Your task to perform on an android device: Is it going to rain today? Image 0: 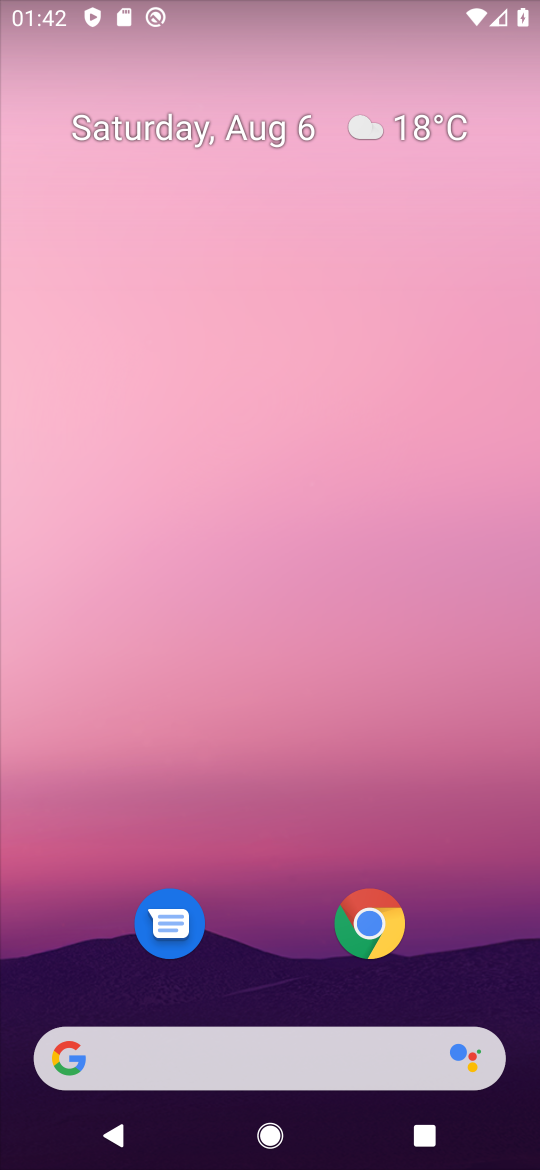
Step 0: click (354, 347)
Your task to perform on an android device: Is it going to rain today? Image 1: 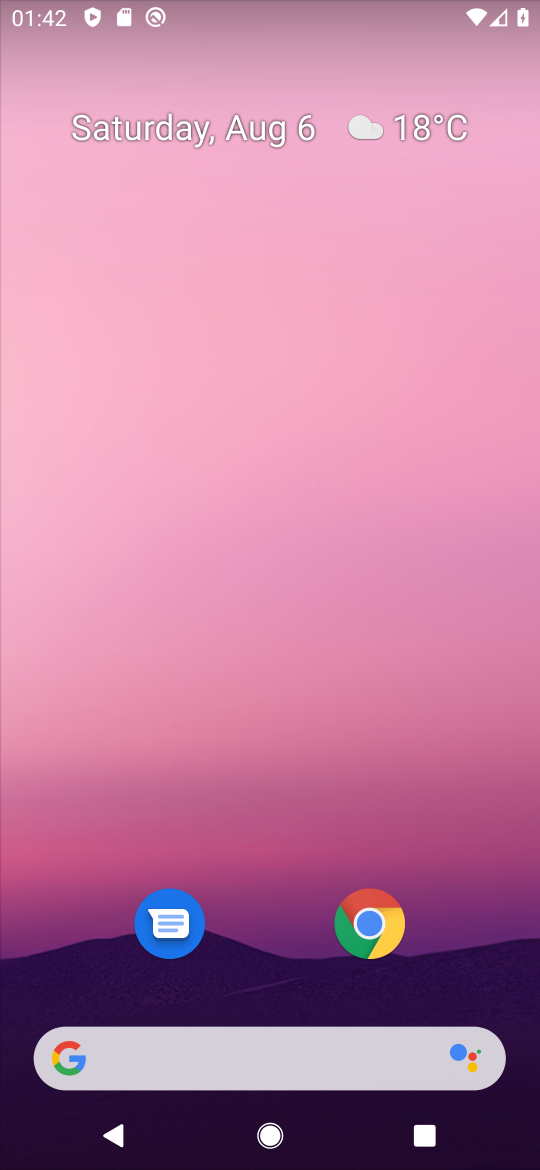
Step 1: drag from (295, 995) to (324, 345)
Your task to perform on an android device: Is it going to rain today? Image 2: 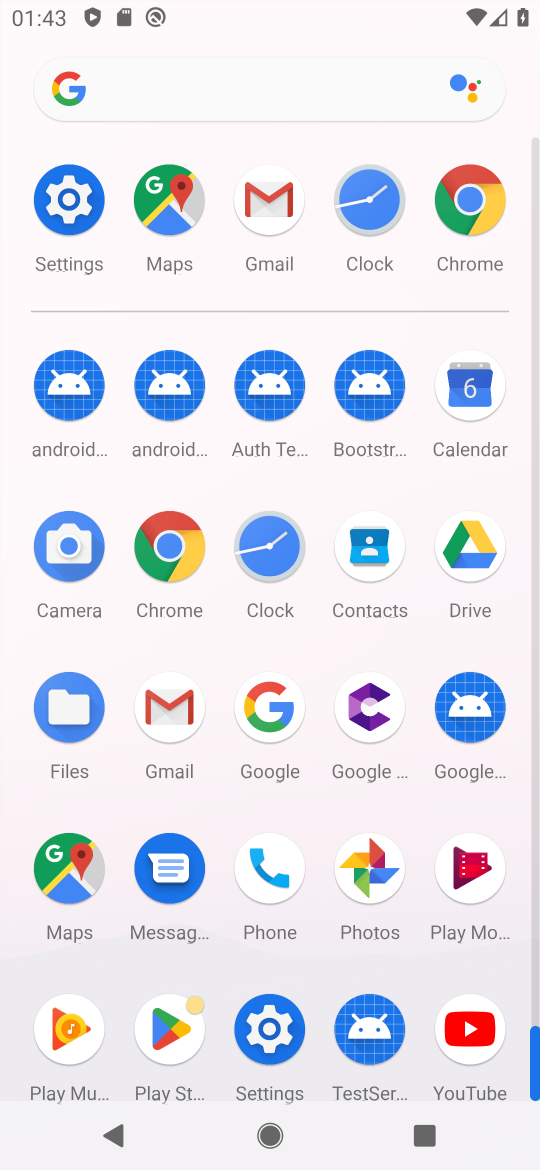
Step 2: click (161, 84)
Your task to perform on an android device: Is it going to rain today? Image 3: 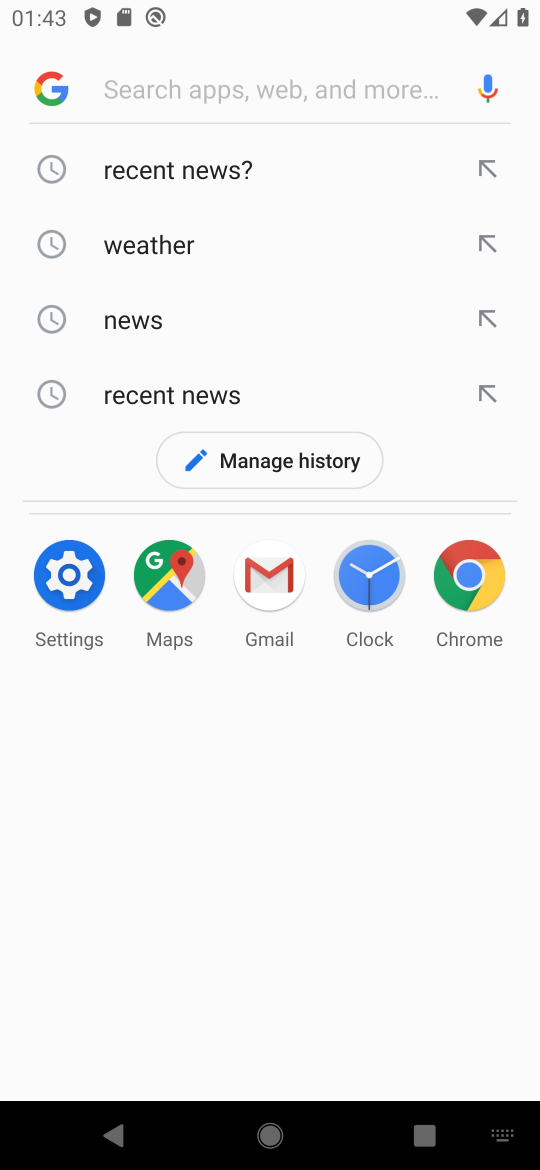
Step 3: type "Is it going to rain today?"
Your task to perform on an android device: Is it going to rain today? Image 4: 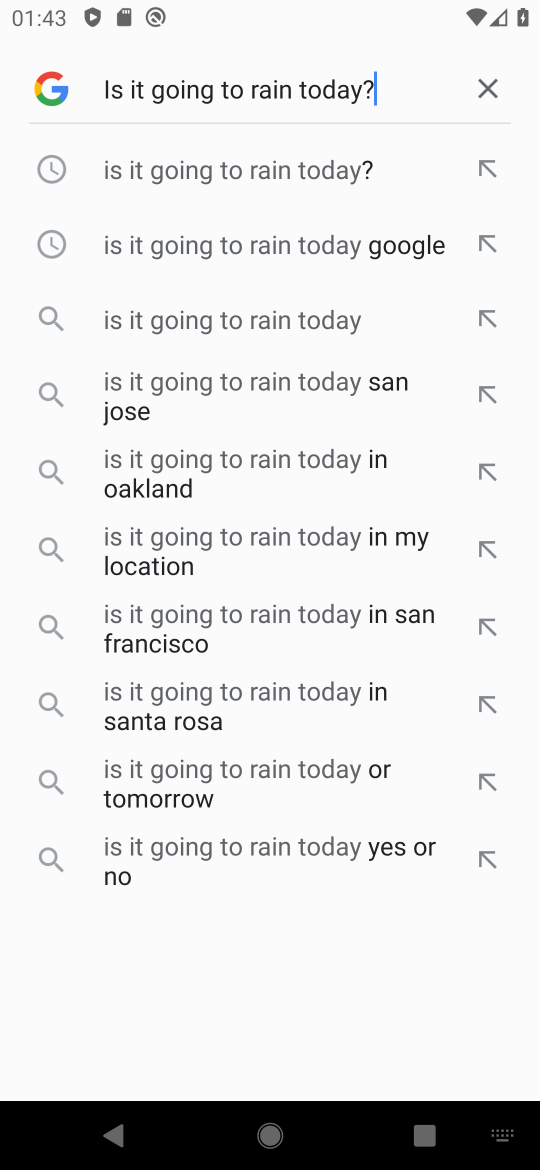
Step 4: type ""
Your task to perform on an android device: Is it going to rain today? Image 5: 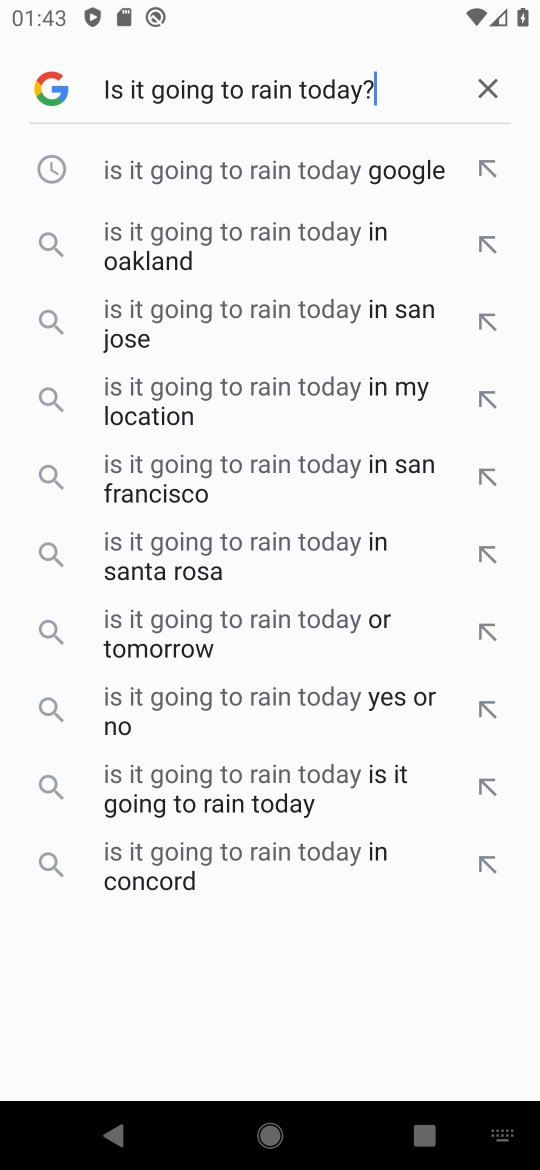
Step 5: click (258, 87)
Your task to perform on an android device: Is it going to rain today? Image 6: 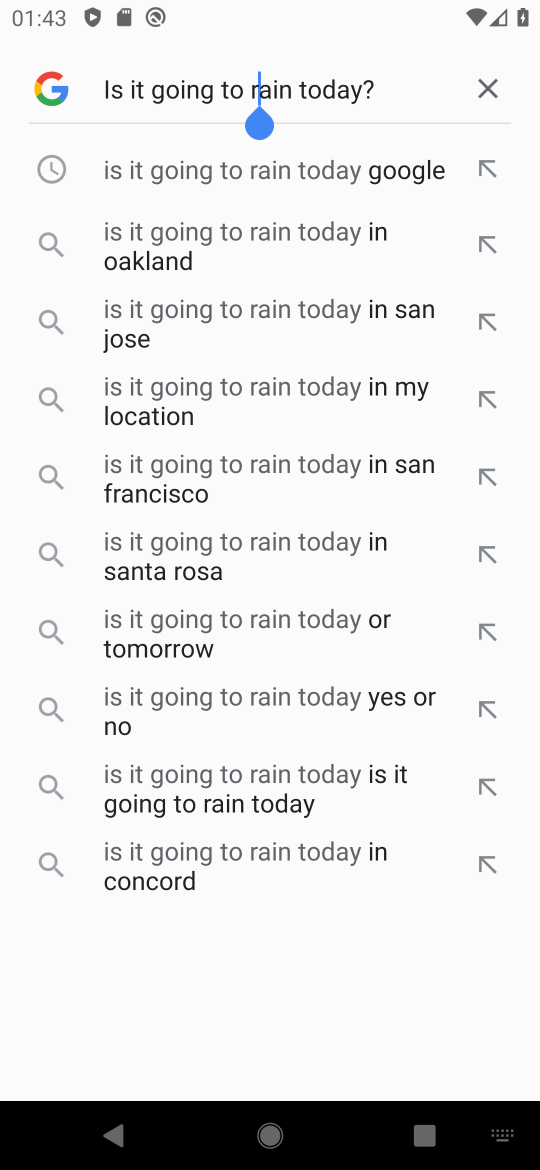
Step 6: click (177, 175)
Your task to perform on an android device: Is it going to rain today? Image 7: 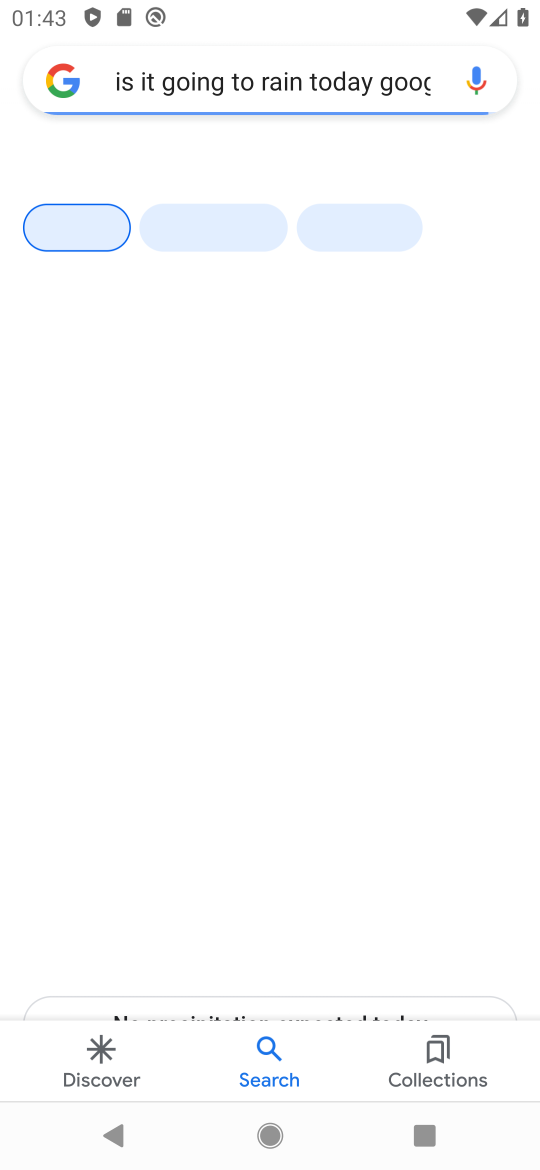
Step 7: task complete